Your task to perform on an android device: set an alarm Image 0: 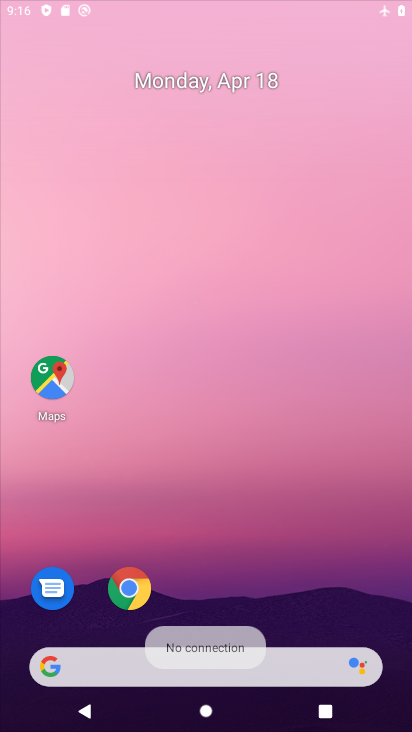
Step 0: drag from (302, 324) to (309, 143)
Your task to perform on an android device: set an alarm Image 1: 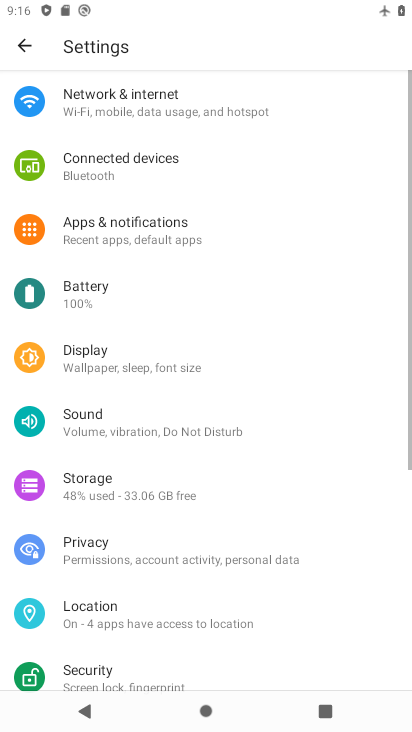
Step 1: press home button
Your task to perform on an android device: set an alarm Image 2: 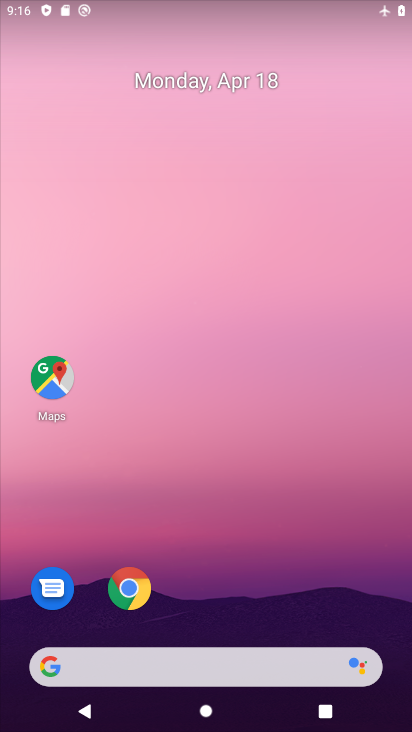
Step 2: drag from (253, 432) to (283, 243)
Your task to perform on an android device: set an alarm Image 3: 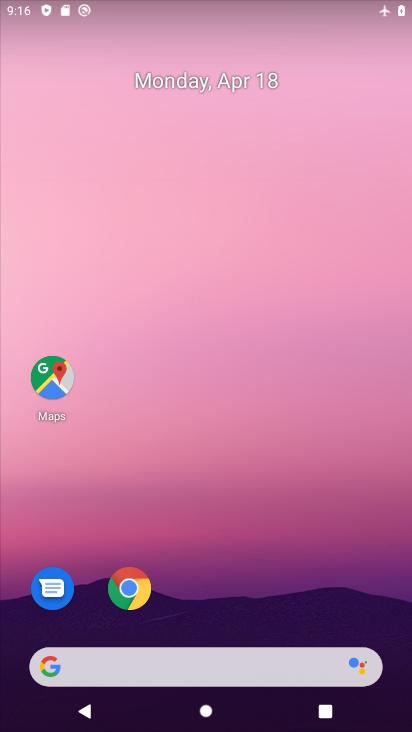
Step 3: drag from (308, 405) to (339, 222)
Your task to perform on an android device: set an alarm Image 4: 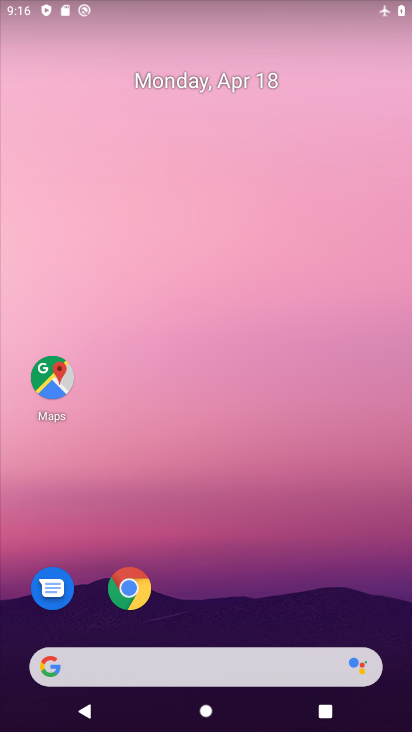
Step 4: drag from (272, 606) to (325, 174)
Your task to perform on an android device: set an alarm Image 5: 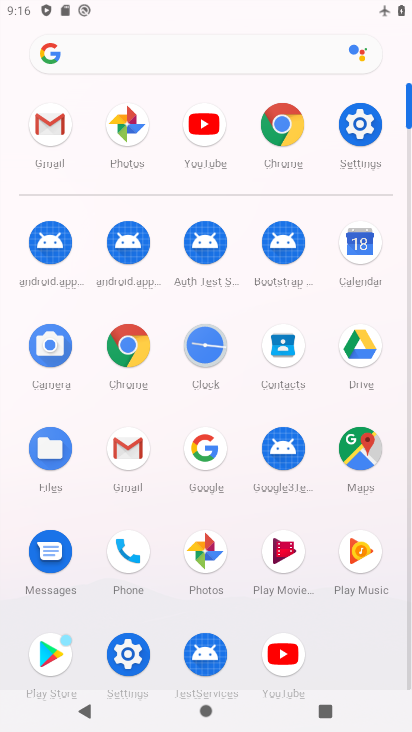
Step 5: click (206, 343)
Your task to perform on an android device: set an alarm Image 6: 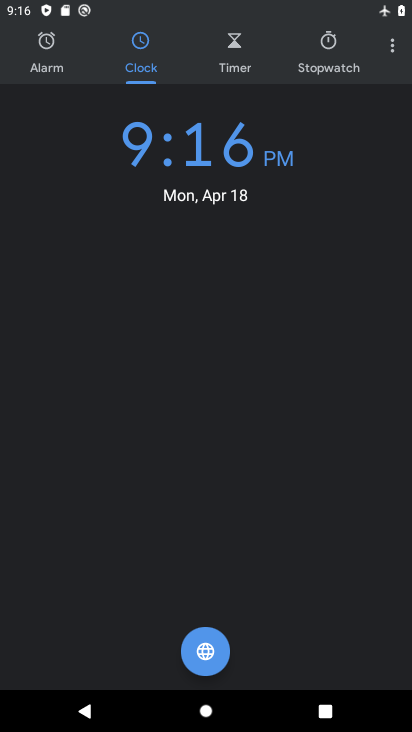
Step 6: click (49, 50)
Your task to perform on an android device: set an alarm Image 7: 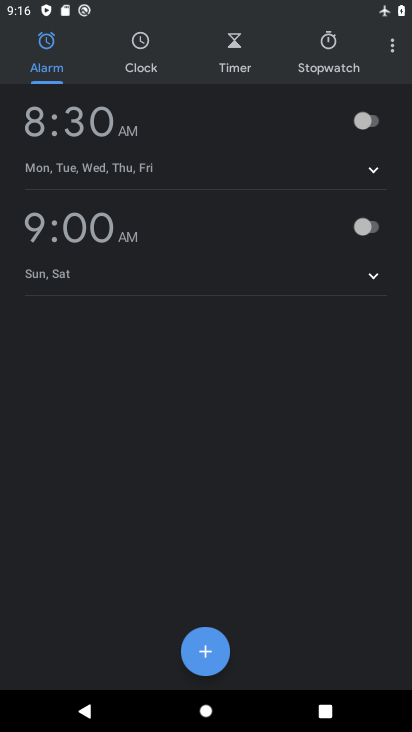
Step 7: click (244, 149)
Your task to perform on an android device: set an alarm Image 8: 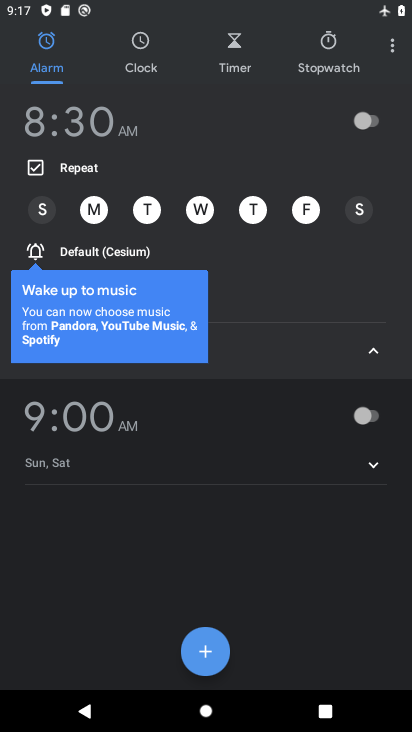
Step 8: click (367, 122)
Your task to perform on an android device: set an alarm Image 9: 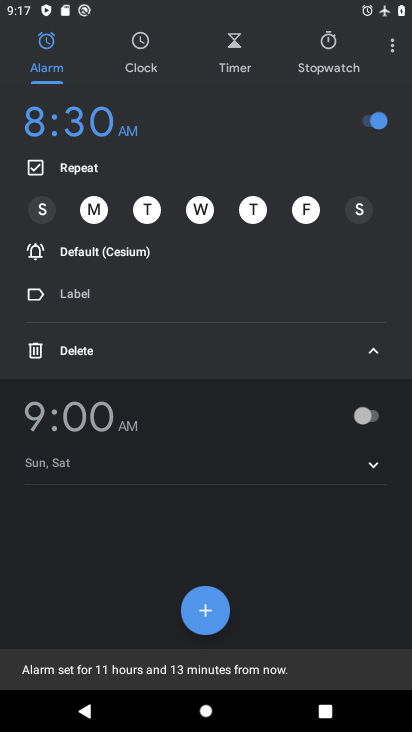
Step 9: click (30, 201)
Your task to perform on an android device: set an alarm Image 10: 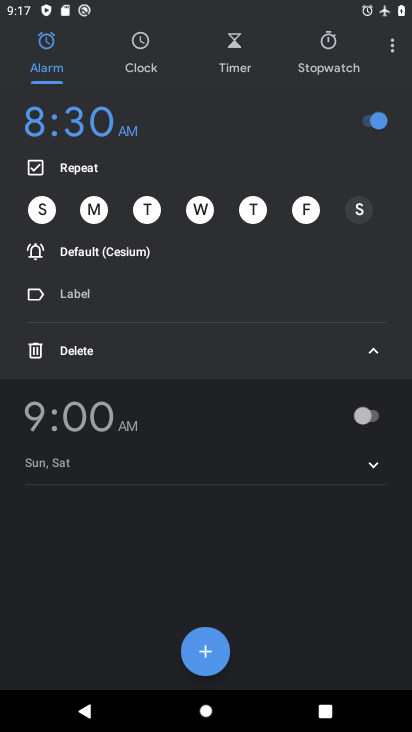
Step 10: click (358, 217)
Your task to perform on an android device: set an alarm Image 11: 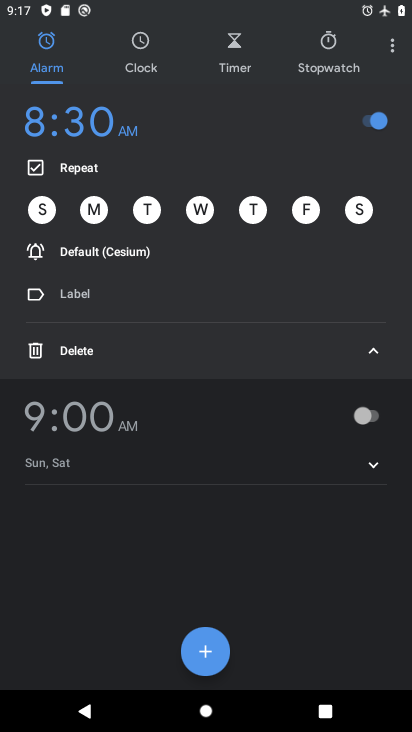
Step 11: click (370, 355)
Your task to perform on an android device: set an alarm Image 12: 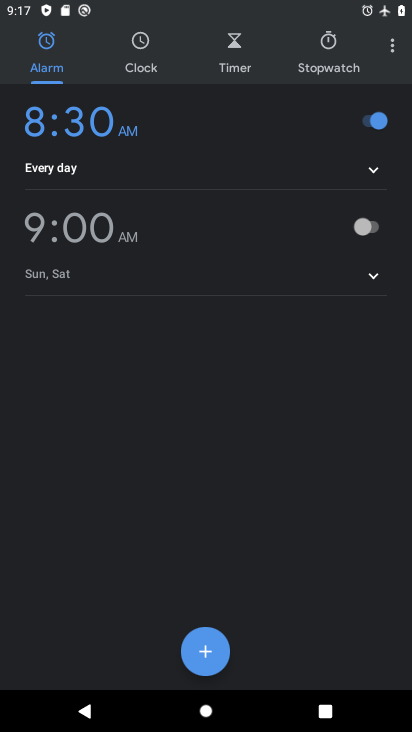
Step 12: task complete